Your task to perform on an android device: Go to network settings Image 0: 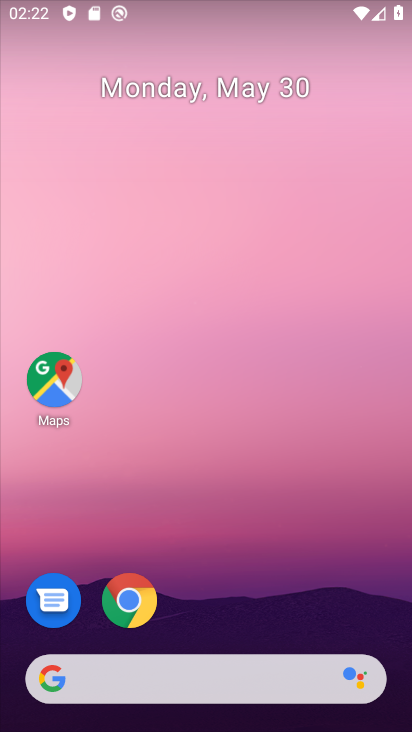
Step 0: drag from (268, 633) to (248, 117)
Your task to perform on an android device: Go to network settings Image 1: 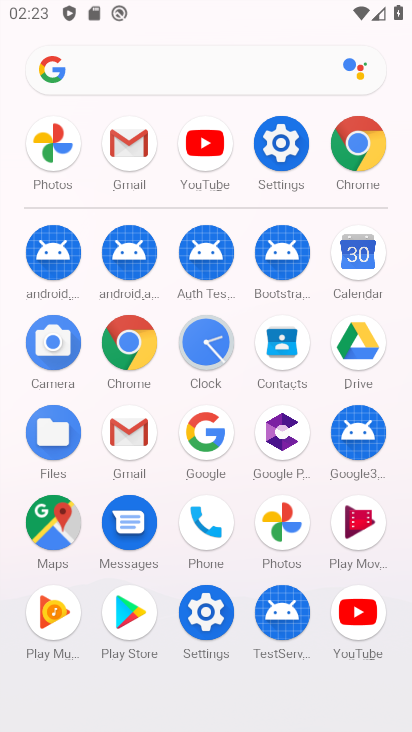
Step 1: click (202, 600)
Your task to perform on an android device: Go to network settings Image 2: 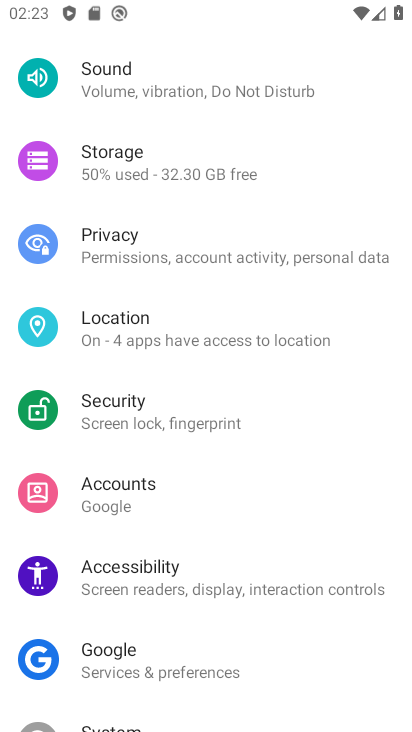
Step 2: drag from (262, 177) to (198, 603)
Your task to perform on an android device: Go to network settings Image 3: 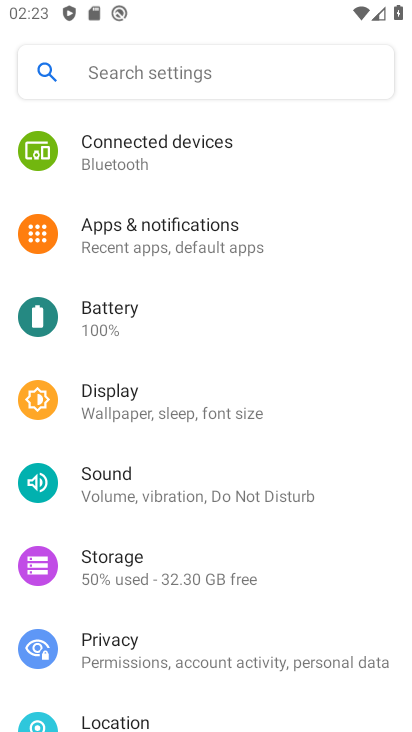
Step 3: drag from (245, 191) to (187, 576)
Your task to perform on an android device: Go to network settings Image 4: 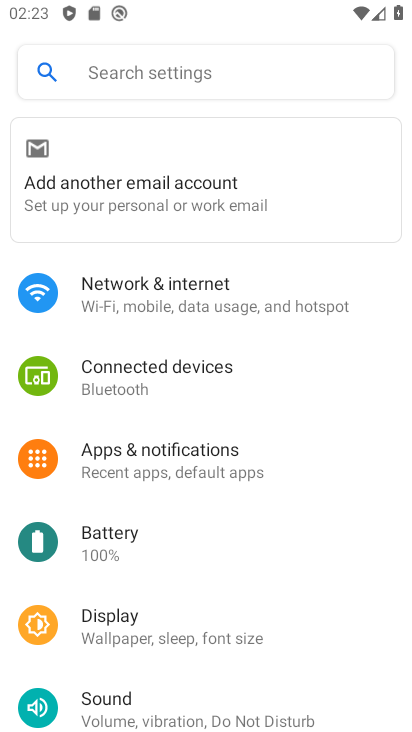
Step 4: click (177, 299)
Your task to perform on an android device: Go to network settings Image 5: 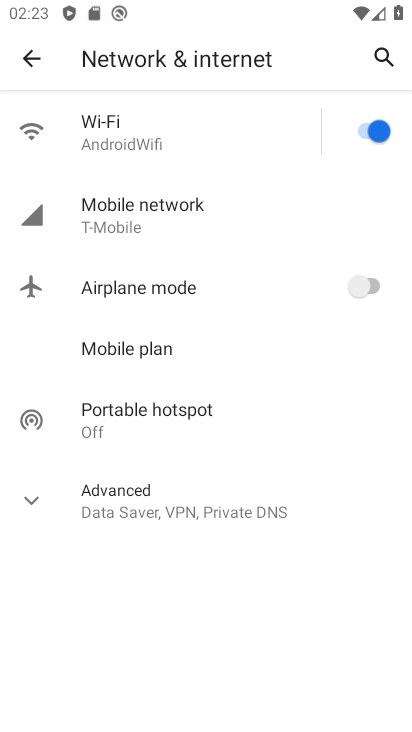
Step 5: task complete